Your task to perform on an android device: Open a new Chrome private window Image 0: 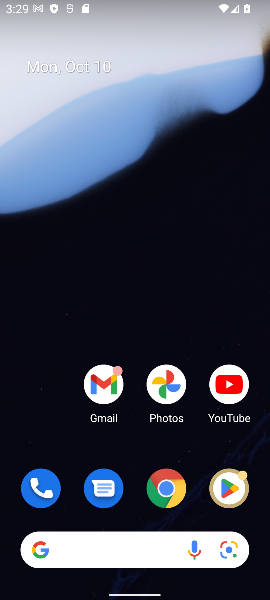
Step 0: click (169, 491)
Your task to perform on an android device: Open a new Chrome private window Image 1: 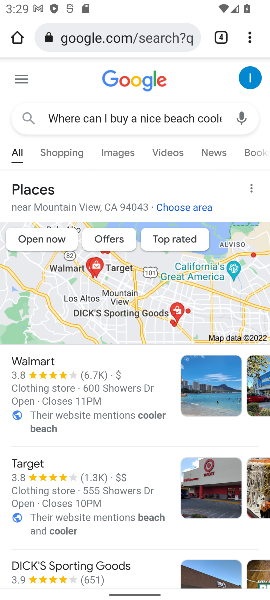
Step 1: click (223, 38)
Your task to perform on an android device: Open a new Chrome private window Image 2: 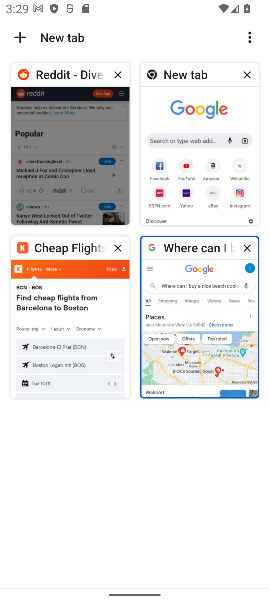
Step 2: click (16, 36)
Your task to perform on an android device: Open a new Chrome private window Image 3: 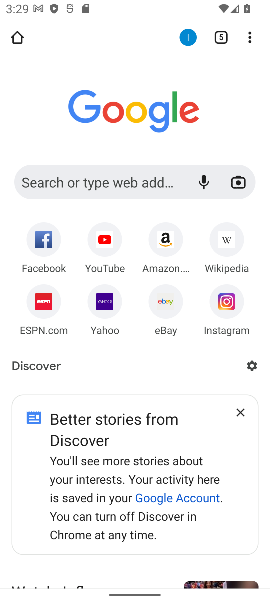
Step 3: task complete